Your task to perform on an android device: open device folders in google photos Image 0: 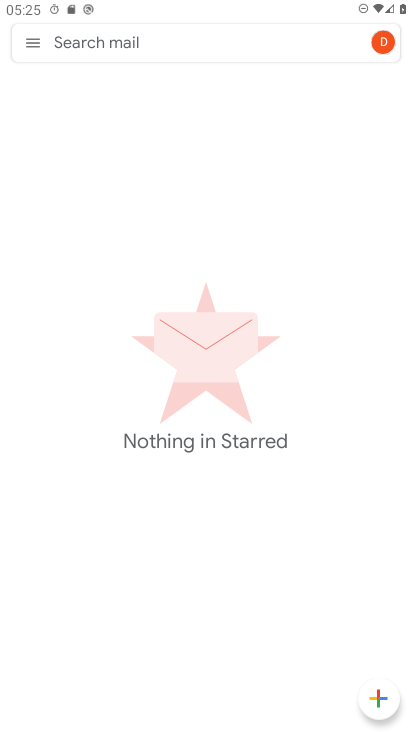
Step 0: press home button
Your task to perform on an android device: open device folders in google photos Image 1: 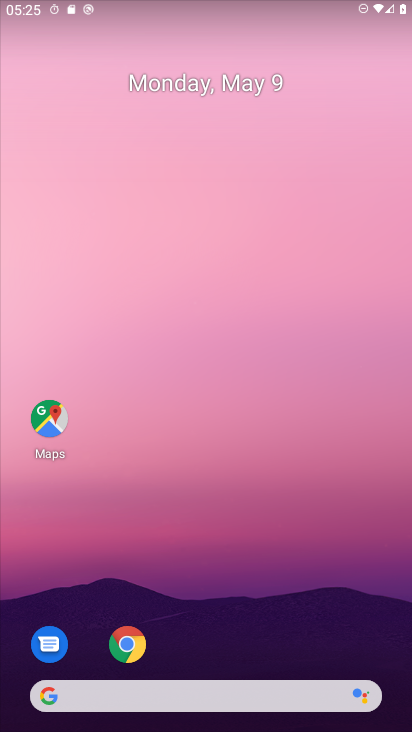
Step 1: drag from (200, 603) to (116, 41)
Your task to perform on an android device: open device folders in google photos Image 2: 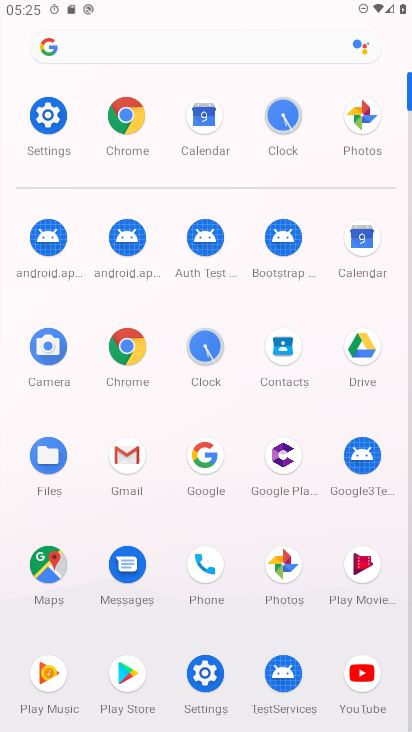
Step 2: click (354, 115)
Your task to perform on an android device: open device folders in google photos Image 3: 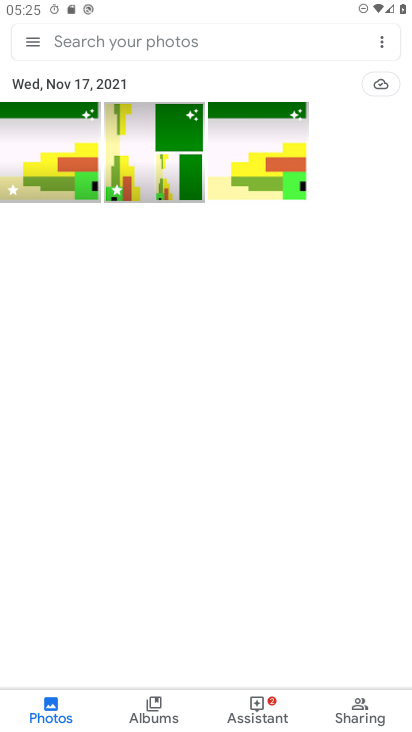
Step 3: click (40, 42)
Your task to perform on an android device: open device folders in google photos Image 4: 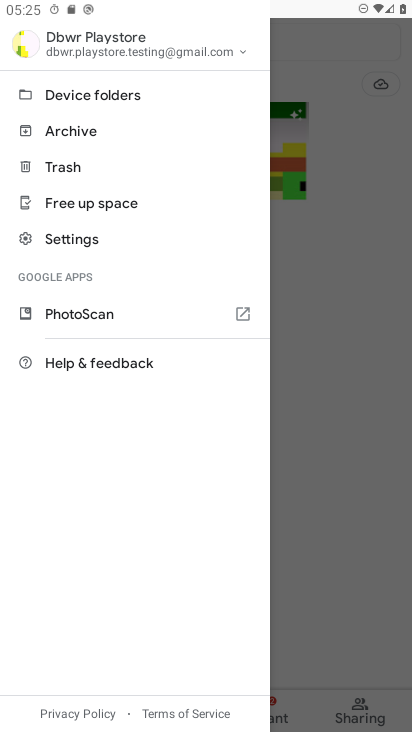
Step 4: click (75, 87)
Your task to perform on an android device: open device folders in google photos Image 5: 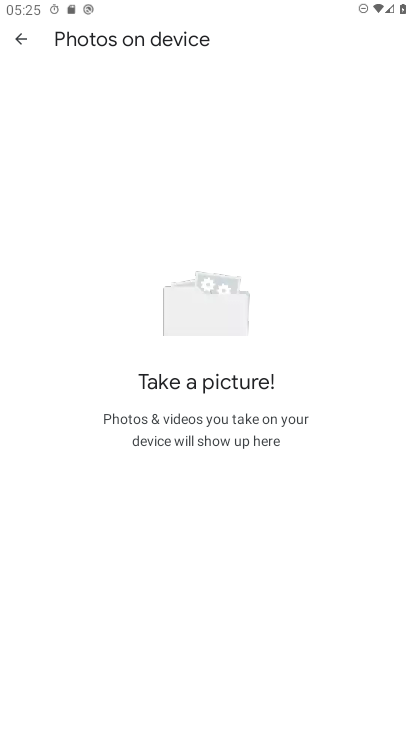
Step 5: task complete